Your task to perform on an android device: change your default location settings in chrome Image 0: 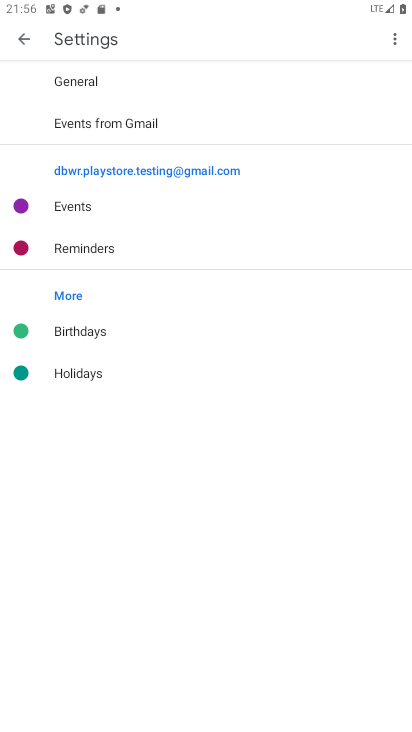
Step 0: press home button
Your task to perform on an android device: change your default location settings in chrome Image 1: 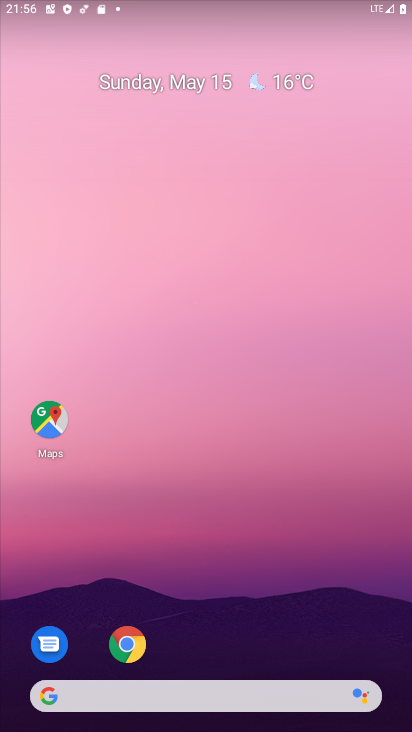
Step 1: click (125, 639)
Your task to perform on an android device: change your default location settings in chrome Image 2: 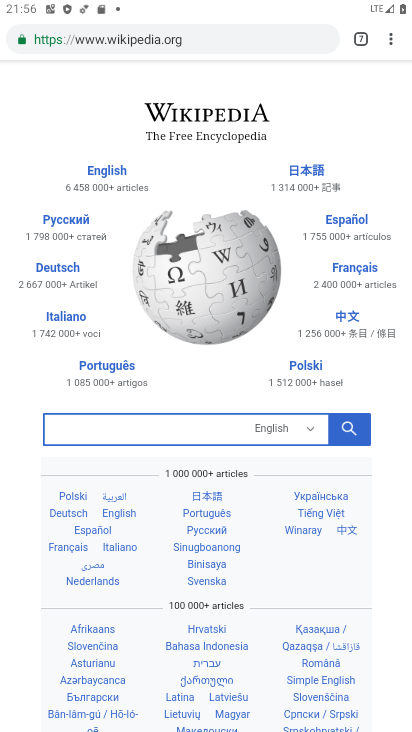
Step 2: drag from (386, 35) to (261, 436)
Your task to perform on an android device: change your default location settings in chrome Image 3: 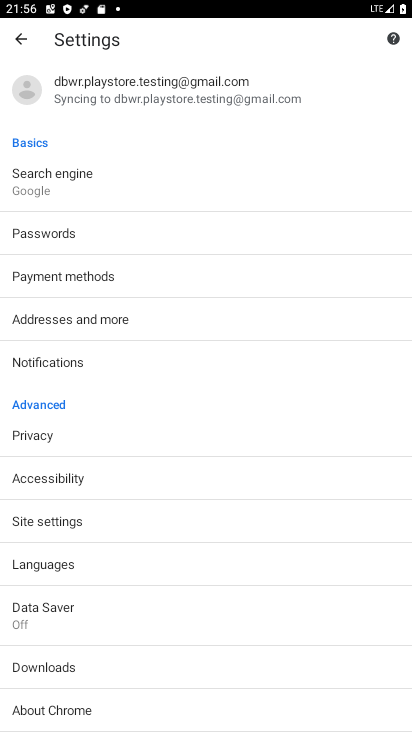
Step 3: click (100, 516)
Your task to perform on an android device: change your default location settings in chrome Image 4: 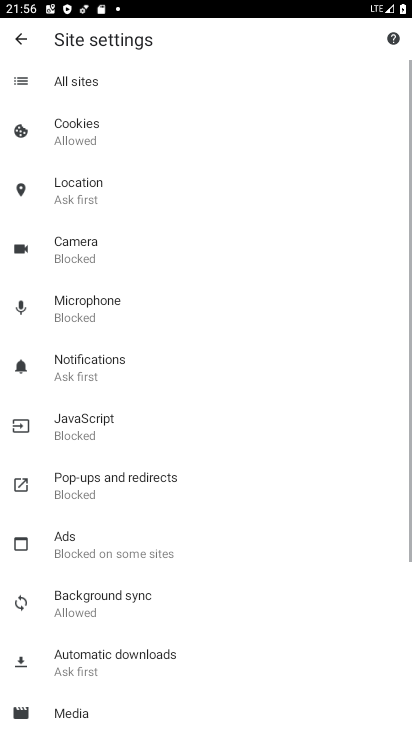
Step 4: click (76, 187)
Your task to perform on an android device: change your default location settings in chrome Image 5: 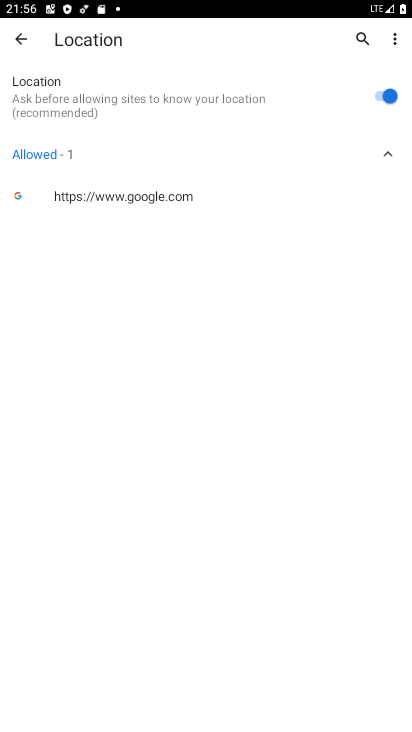
Step 5: click (389, 89)
Your task to perform on an android device: change your default location settings in chrome Image 6: 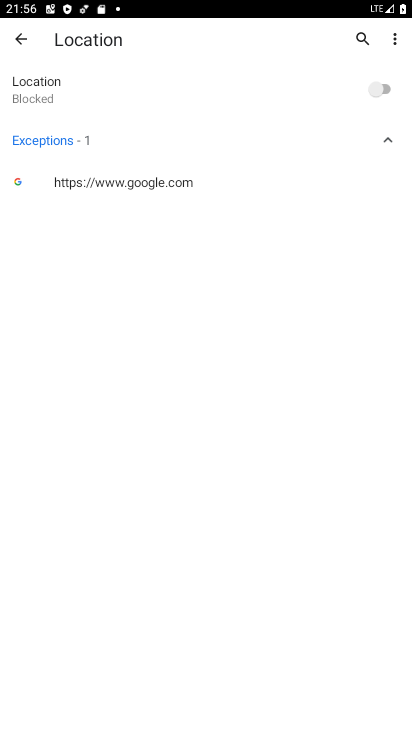
Step 6: task complete